Your task to perform on an android device: open app "NewsBreak: Local News & Alerts" Image 0: 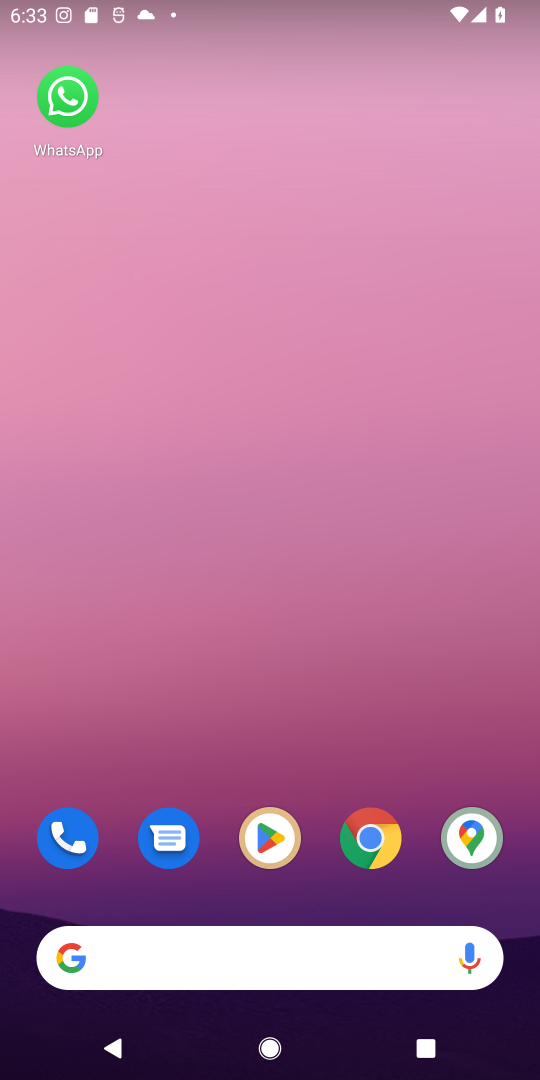
Step 0: click (268, 840)
Your task to perform on an android device: open app "NewsBreak: Local News & Alerts" Image 1: 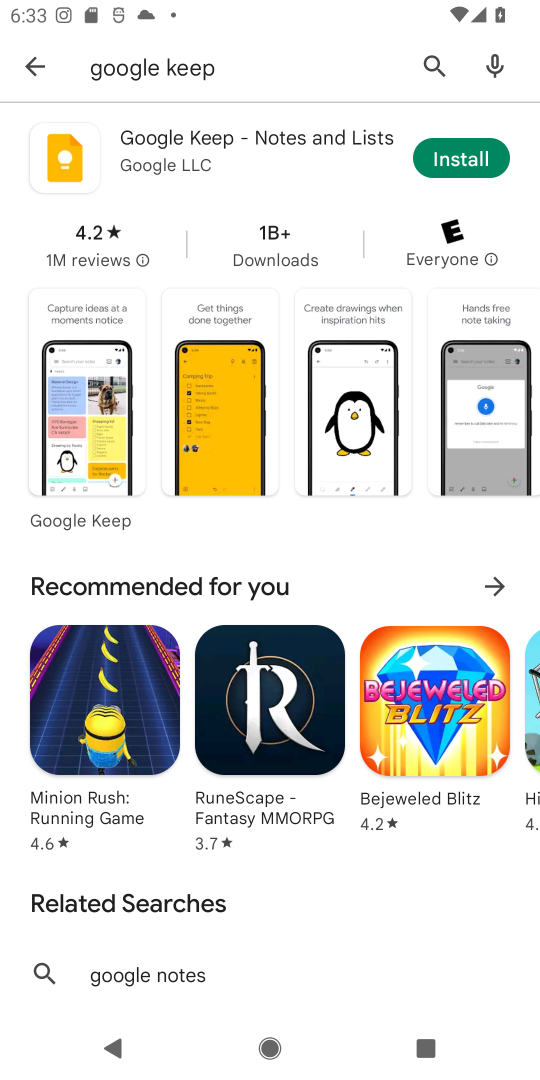
Step 1: click (433, 60)
Your task to perform on an android device: open app "NewsBreak: Local News & Alerts" Image 2: 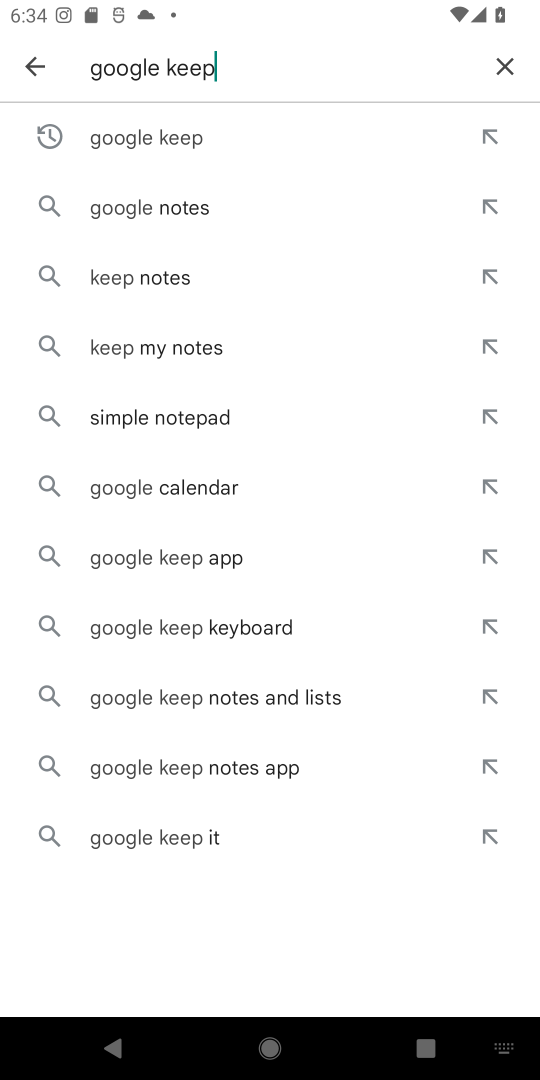
Step 2: click (505, 61)
Your task to perform on an android device: open app "NewsBreak: Local News & Alerts" Image 3: 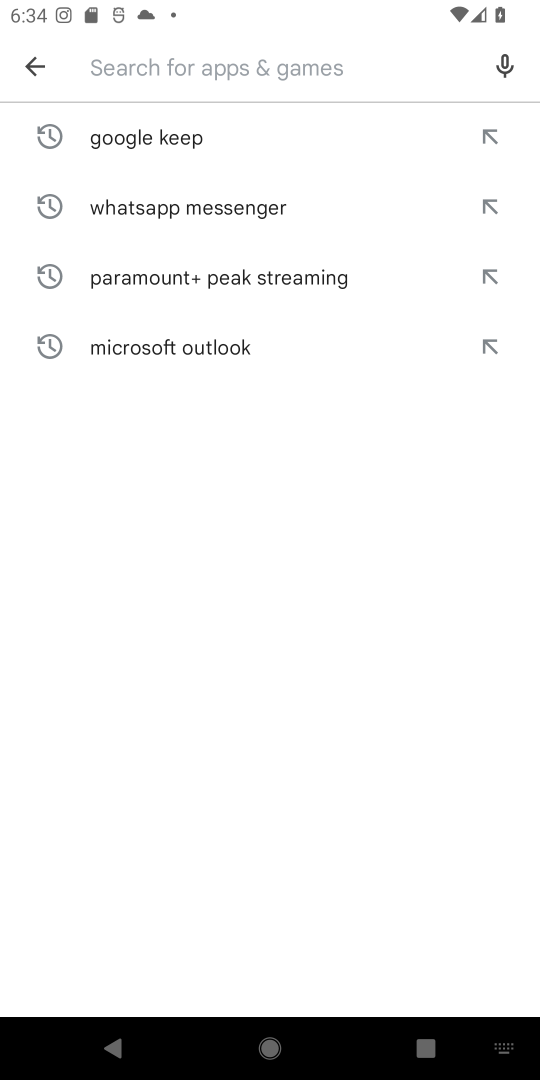
Step 3: type "NewsBreak: Local News & Alerts"
Your task to perform on an android device: open app "NewsBreak: Local News & Alerts" Image 4: 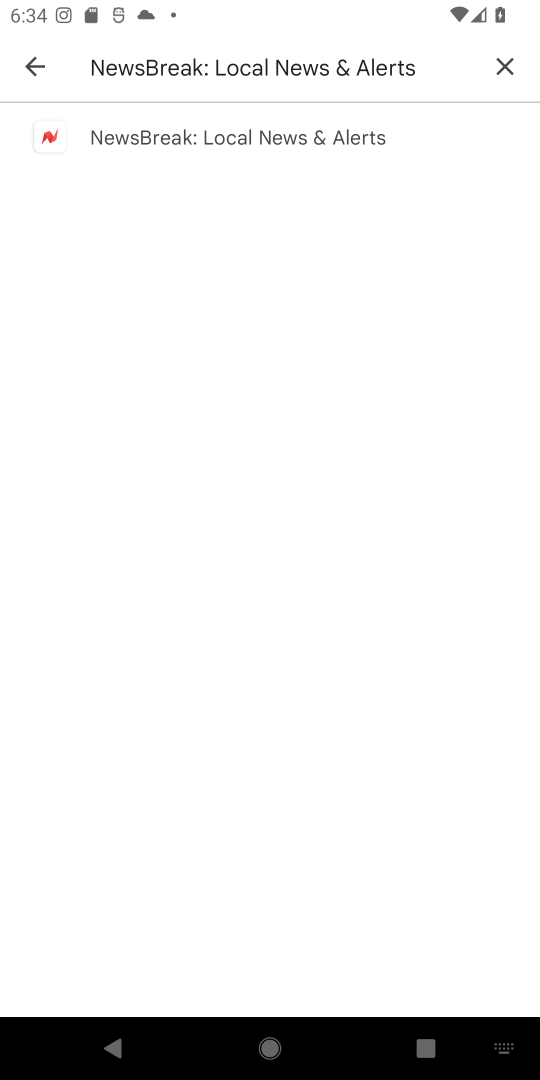
Step 4: click (273, 136)
Your task to perform on an android device: open app "NewsBreak: Local News & Alerts" Image 5: 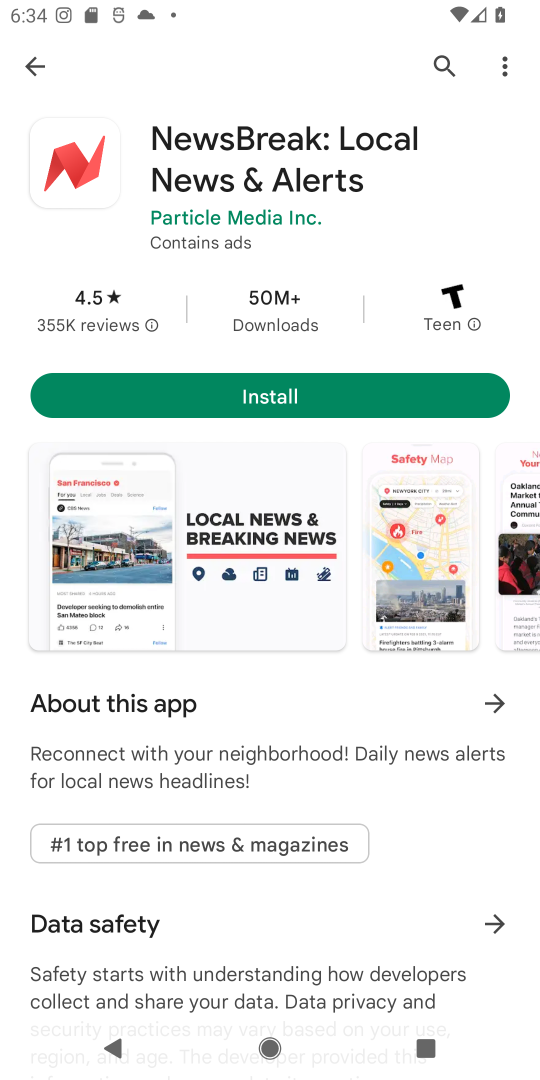
Step 5: task complete